Your task to perform on an android device: Open battery settings Image 0: 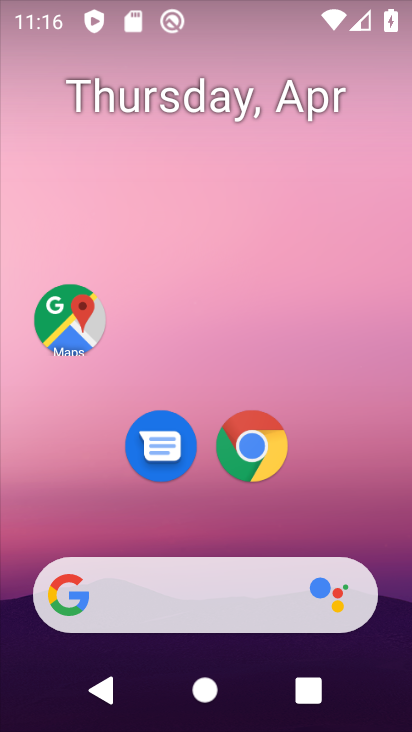
Step 0: drag from (364, 536) to (266, 159)
Your task to perform on an android device: Open battery settings Image 1: 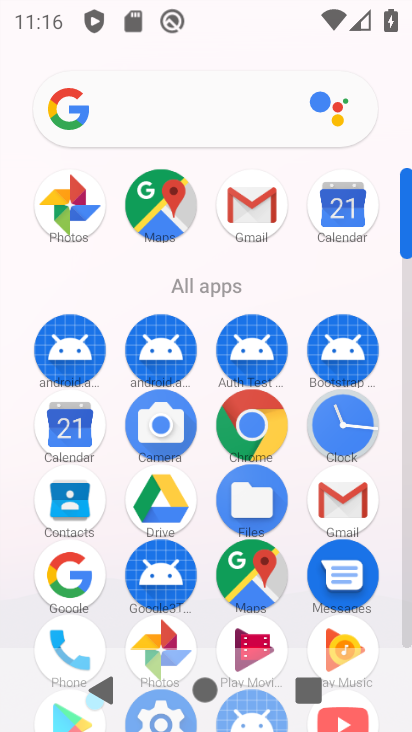
Step 1: click (407, 643)
Your task to perform on an android device: Open battery settings Image 2: 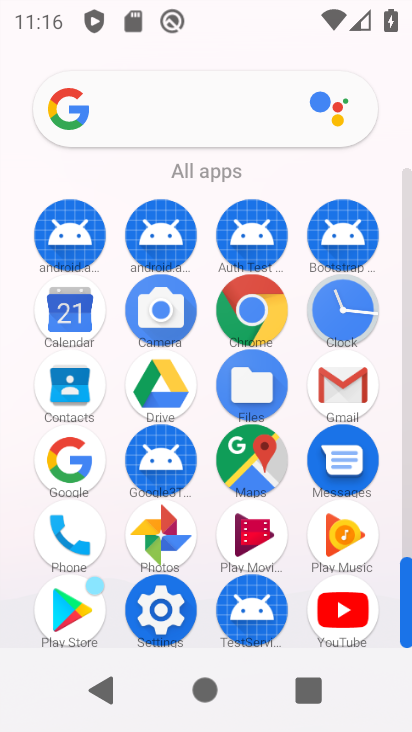
Step 2: click (167, 608)
Your task to perform on an android device: Open battery settings Image 3: 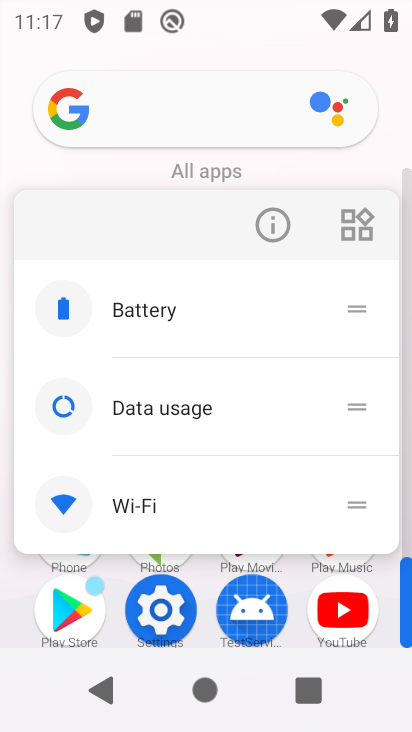
Step 3: click (167, 608)
Your task to perform on an android device: Open battery settings Image 4: 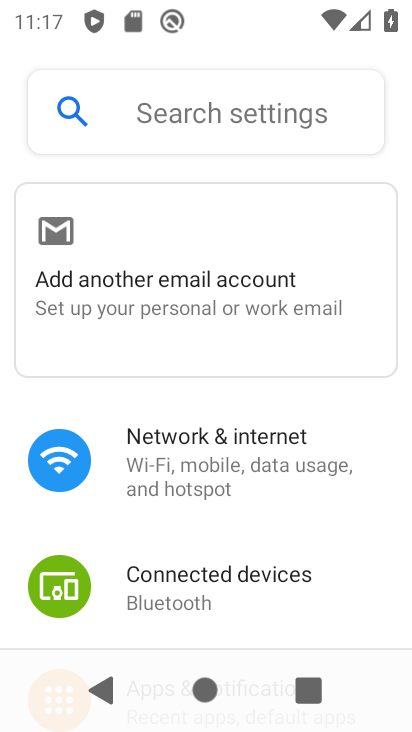
Step 4: drag from (272, 621) to (237, 147)
Your task to perform on an android device: Open battery settings Image 5: 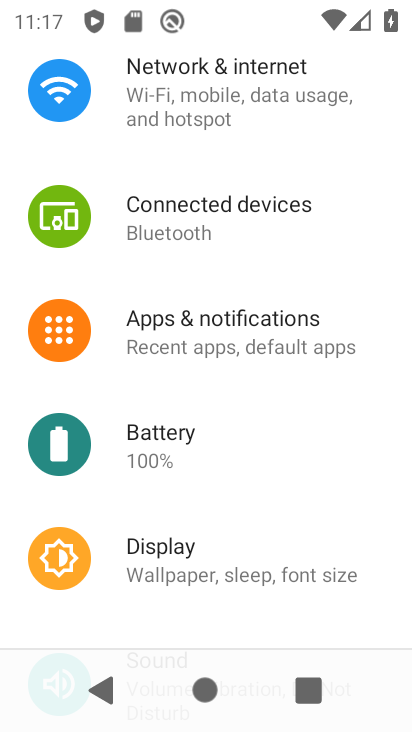
Step 5: click (234, 454)
Your task to perform on an android device: Open battery settings Image 6: 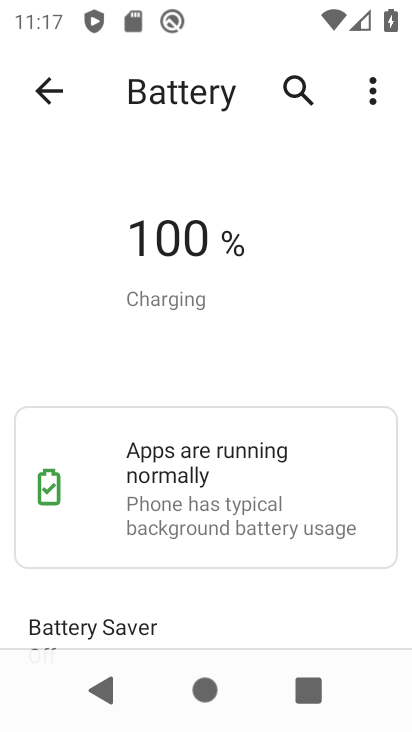
Step 6: task complete